Your task to perform on an android device: Clear the cart on target. Search for "dell xps" on target, select the first entry, and add it to the cart. Image 0: 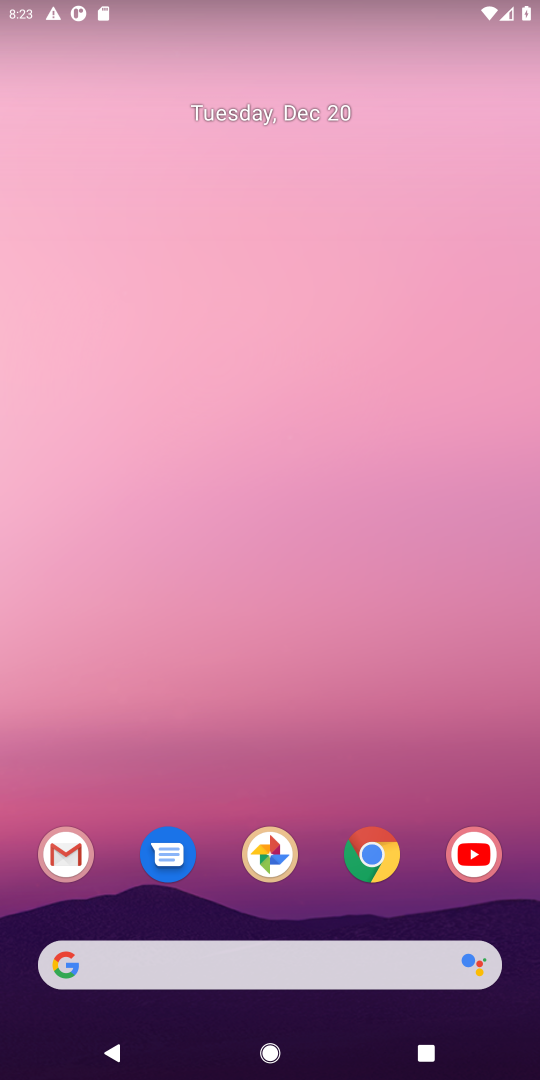
Step 0: click (356, 856)
Your task to perform on an android device: Clear the cart on target. Search for "dell xps" on target, select the first entry, and add it to the cart. Image 1: 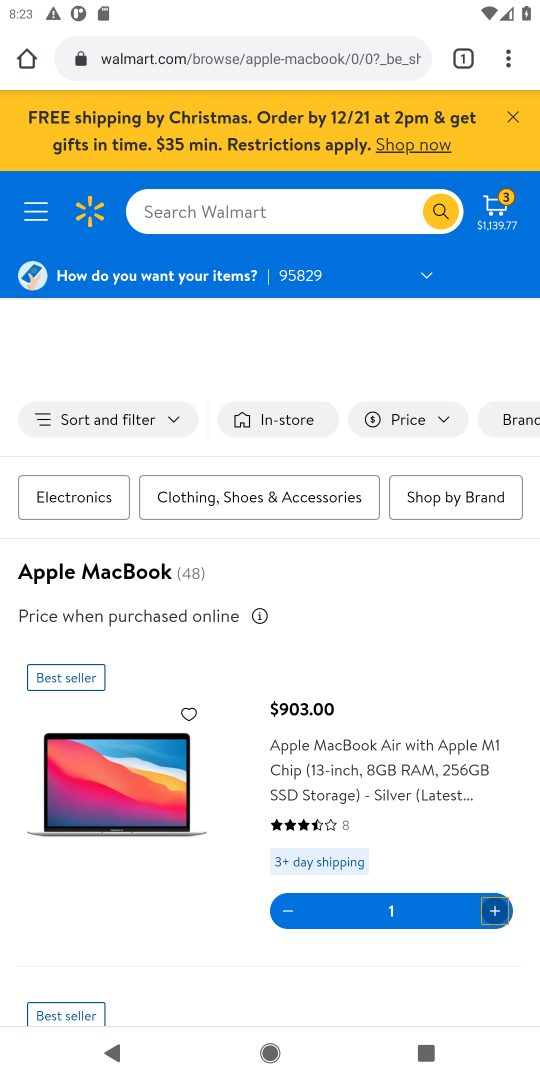
Step 1: click (206, 61)
Your task to perform on an android device: Clear the cart on target. Search for "dell xps" on target, select the first entry, and add it to the cart. Image 2: 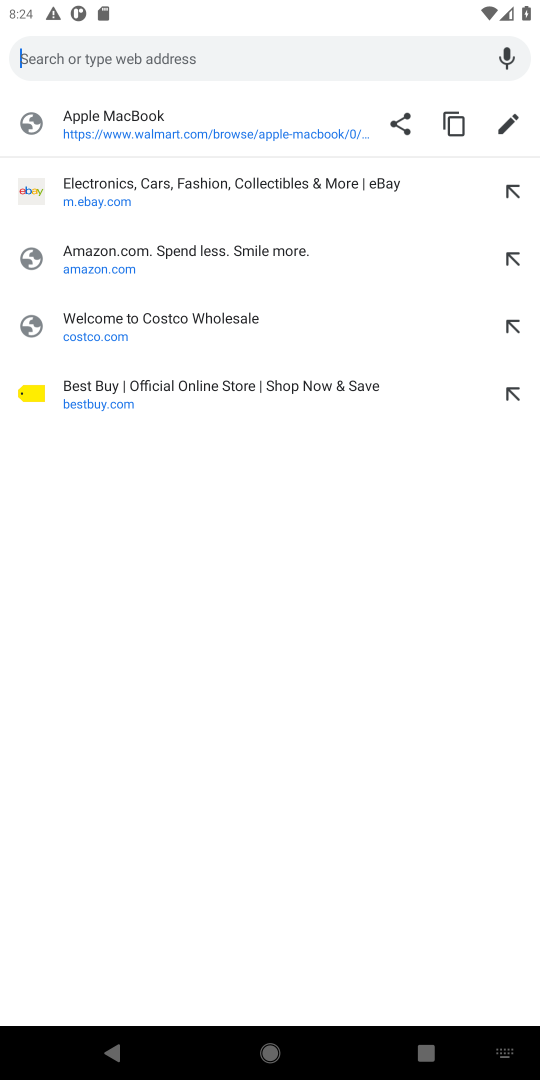
Step 2: type "target.com"
Your task to perform on an android device: Clear the cart on target. Search for "dell xps" on target, select the first entry, and add it to the cart. Image 3: 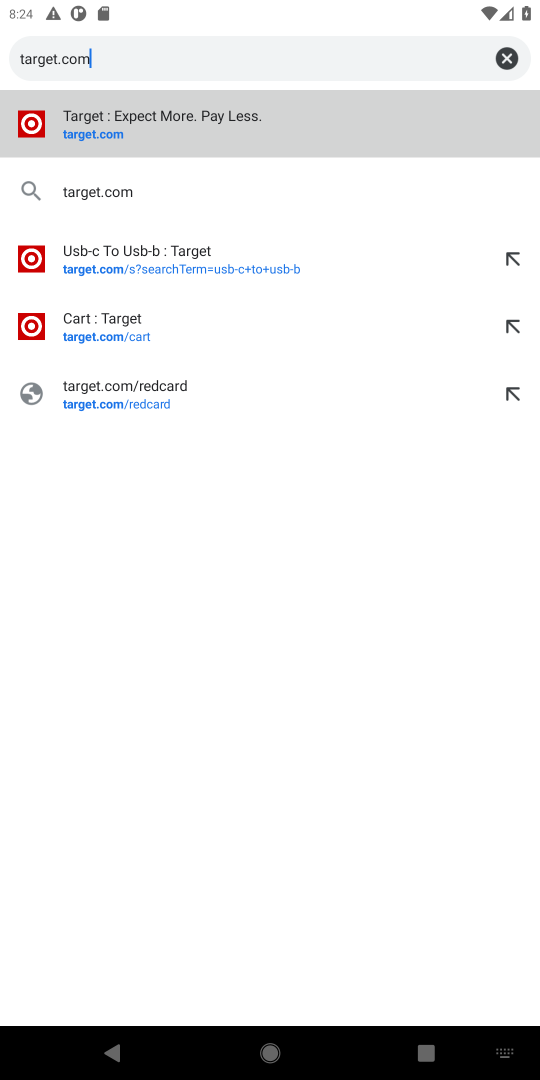
Step 3: click (130, 60)
Your task to perform on an android device: Clear the cart on target. Search for "dell xps" on target, select the first entry, and add it to the cart. Image 4: 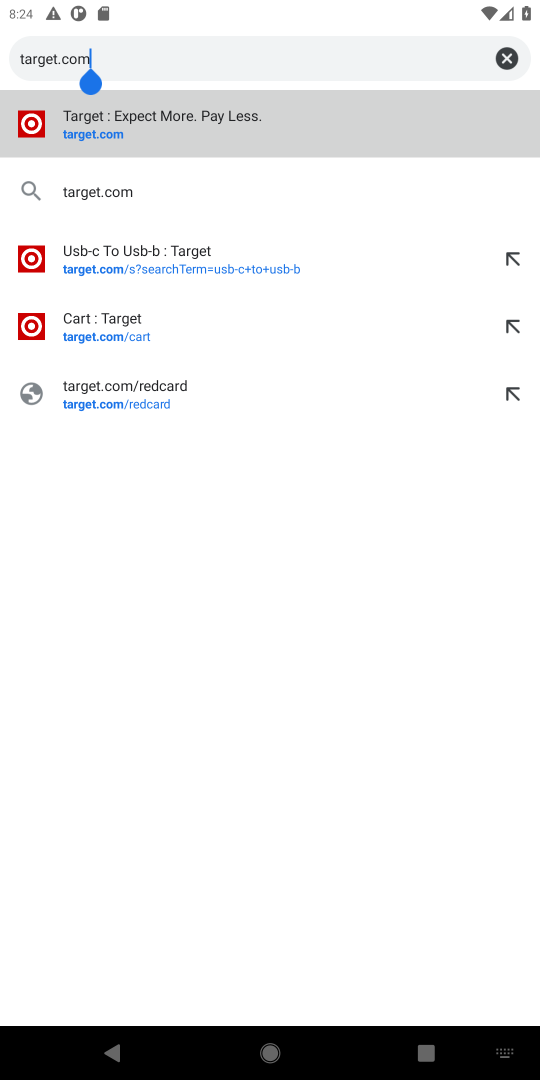
Step 4: click (99, 128)
Your task to perform on an android device: Clear the cart on target. Search for "dell xps" on target, select the first entry, and add it to the cart. Image 5: 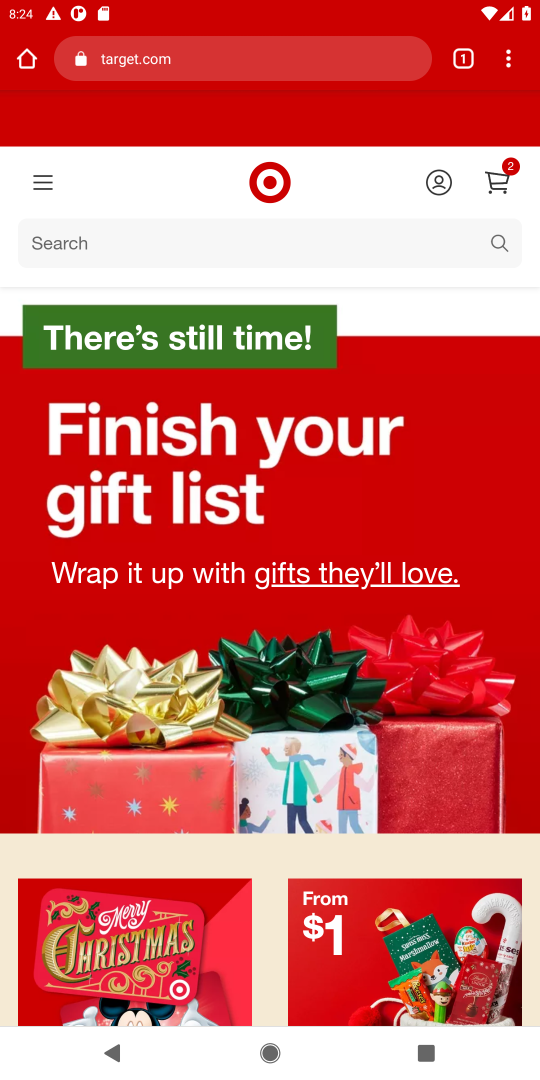
Step 5: click (69, 238)
Your task to perform on an android device: Clear the cart on target. Search for "dell xps" on target, select the first entry, and add it to the cart. Image 6: 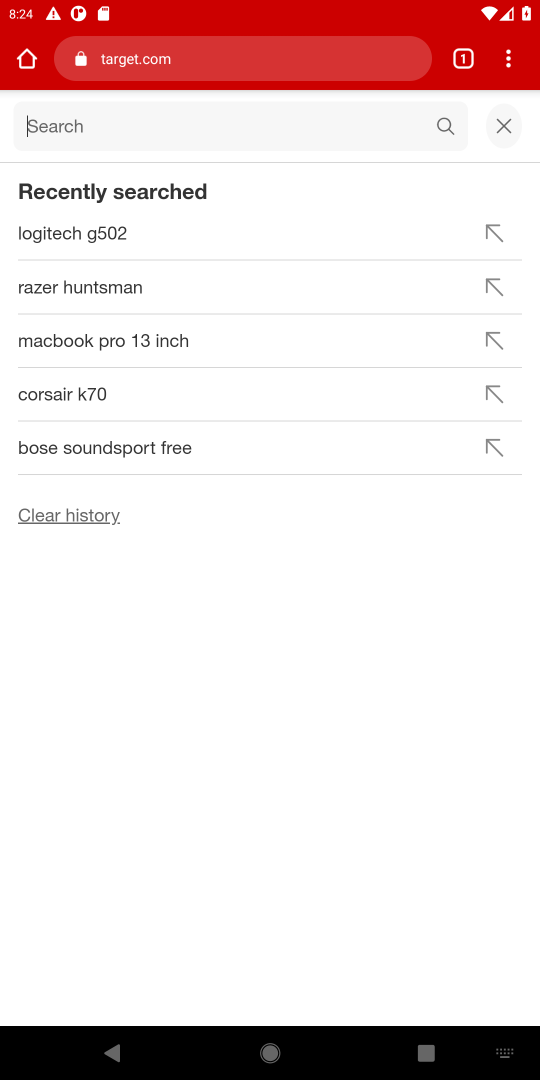
Step 6: type "dell xps"
Your task to perform on an android device: Clear the cart on target. Search for "dell xps" on target, select the first entry, and add it to the cart. Image 7: 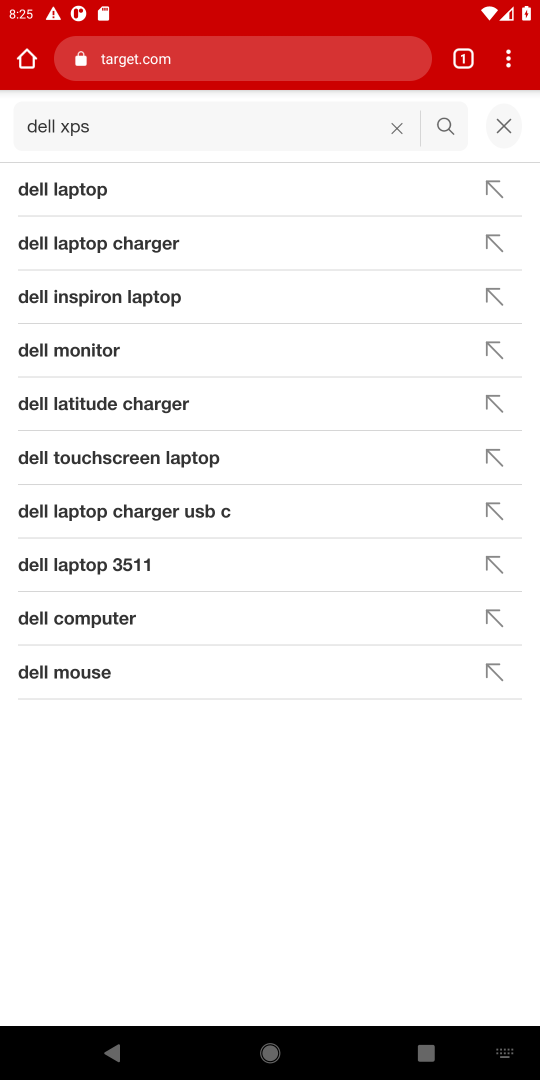
Step 7: click (447, 121)
Your task to perform on an android device: Clear the cart on target. Search for "dell xps" on target, select the first entry, and add it to the cart. Image 8: 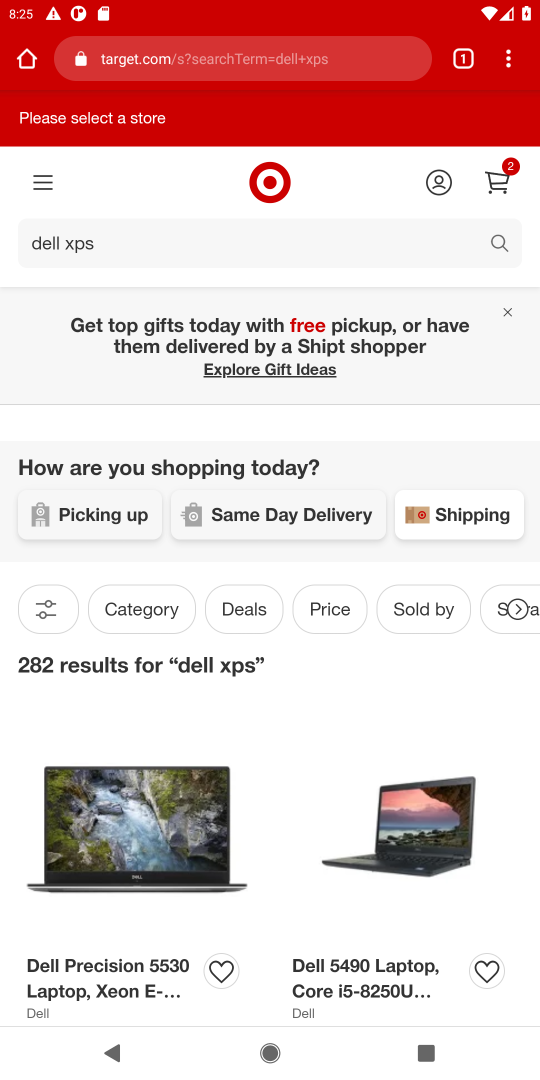
Step 8: task complete